Your task to perform on an android device: Add logitech g903 to the cart on ebay.com, then select checkout. Image 0: 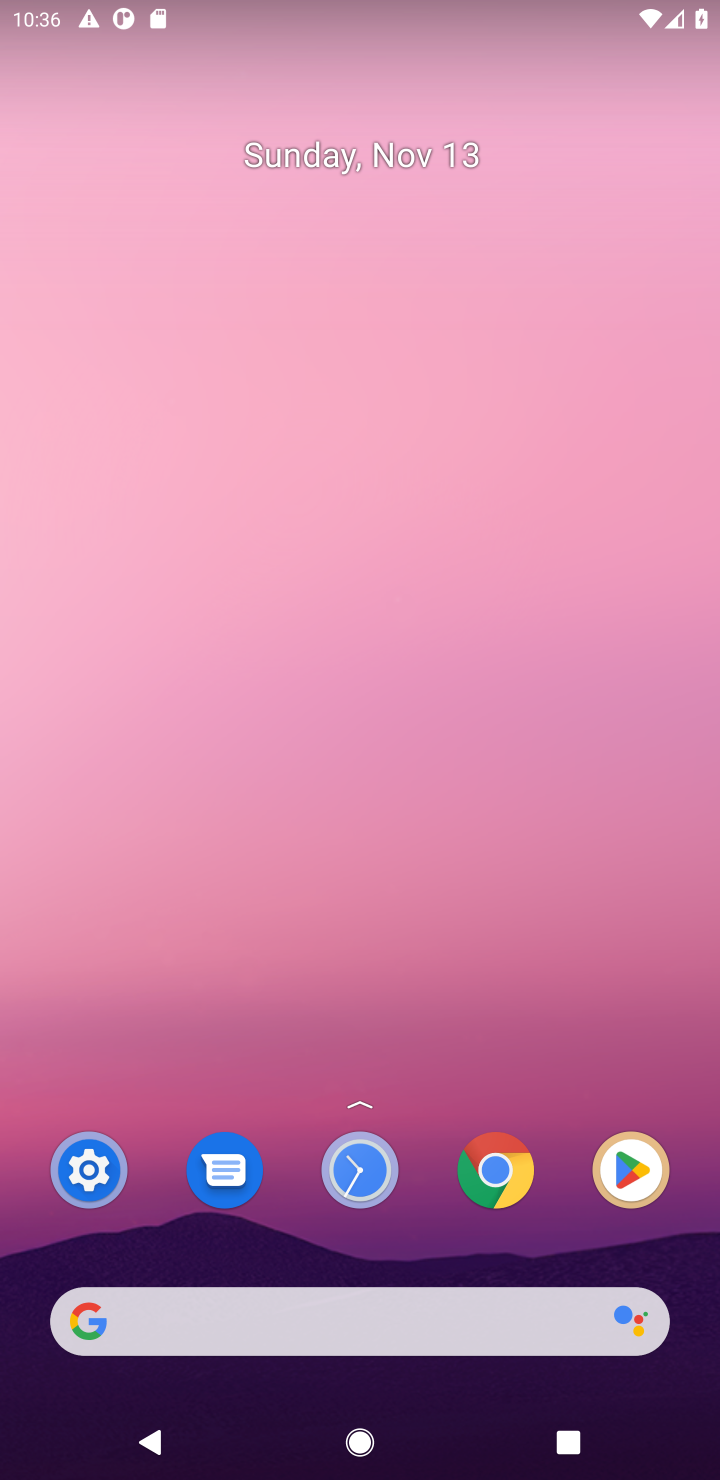
Step 0: click (463, 1332)
Your task to perform on an android device: Add logitech g903 to the cart on ebay.com, then select checkout. Image 1: 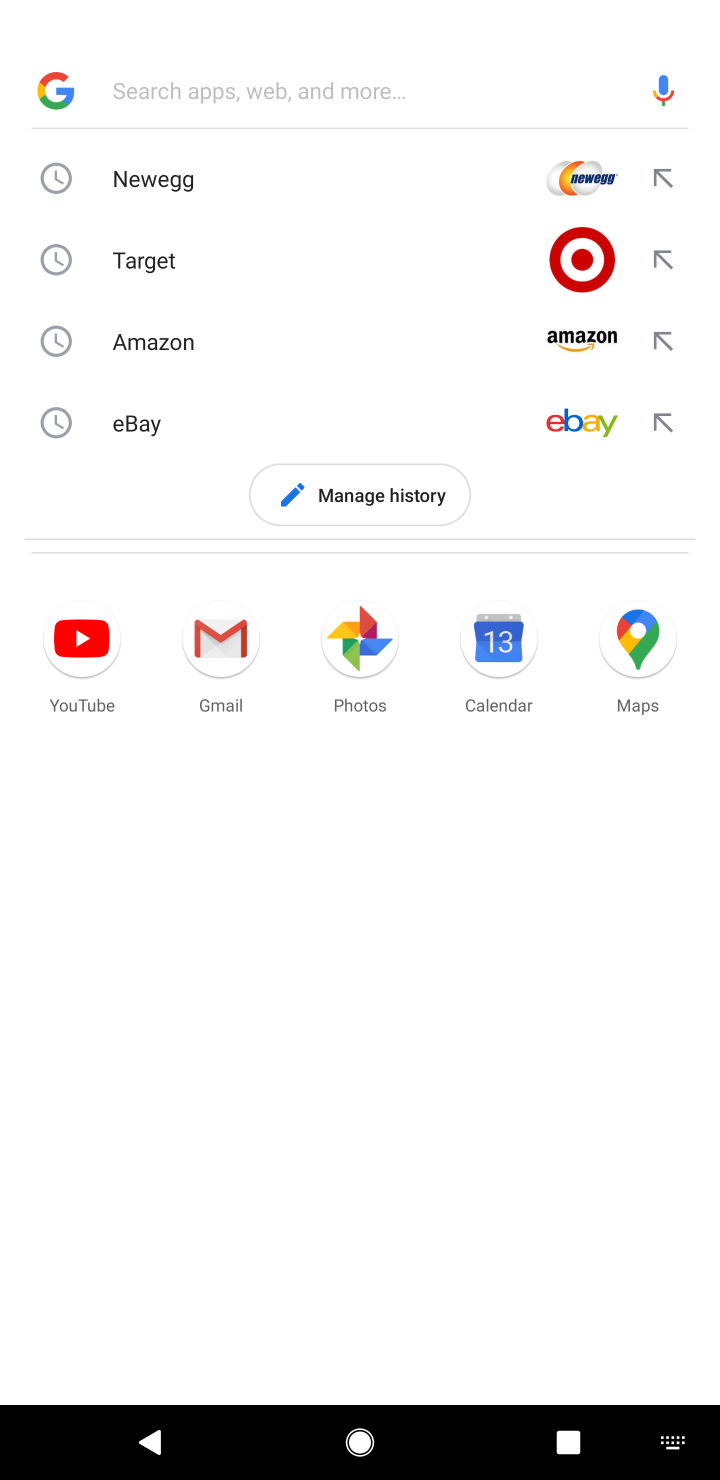
Step 1: type "ebay.com"
Your task to perform on an android device: Add logitech g903 to the cart on ebay.com, then select checkout. Image 2: 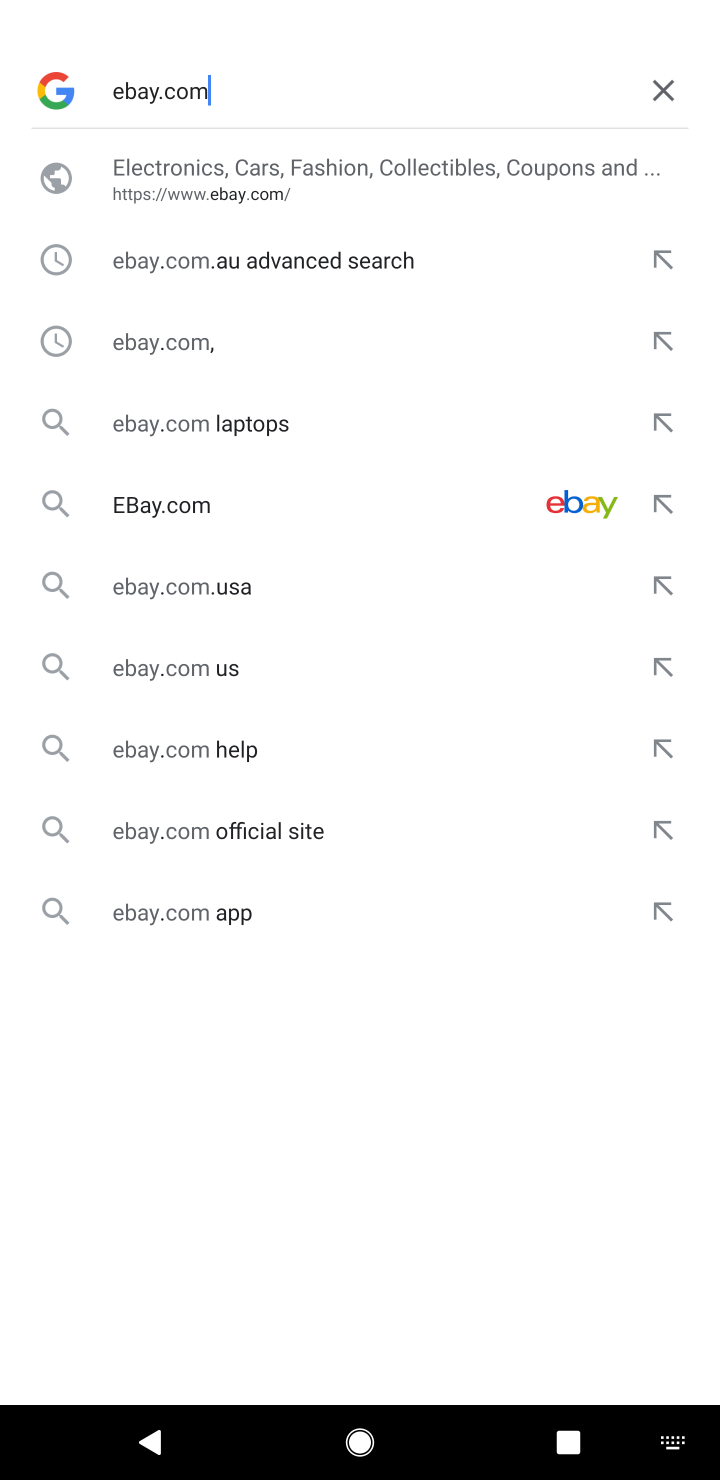
Step 2: click (128, 214)
Your task to perform on an android device: Add logitech g903 to the cart on ebay.com, then select checkout. Image 3: 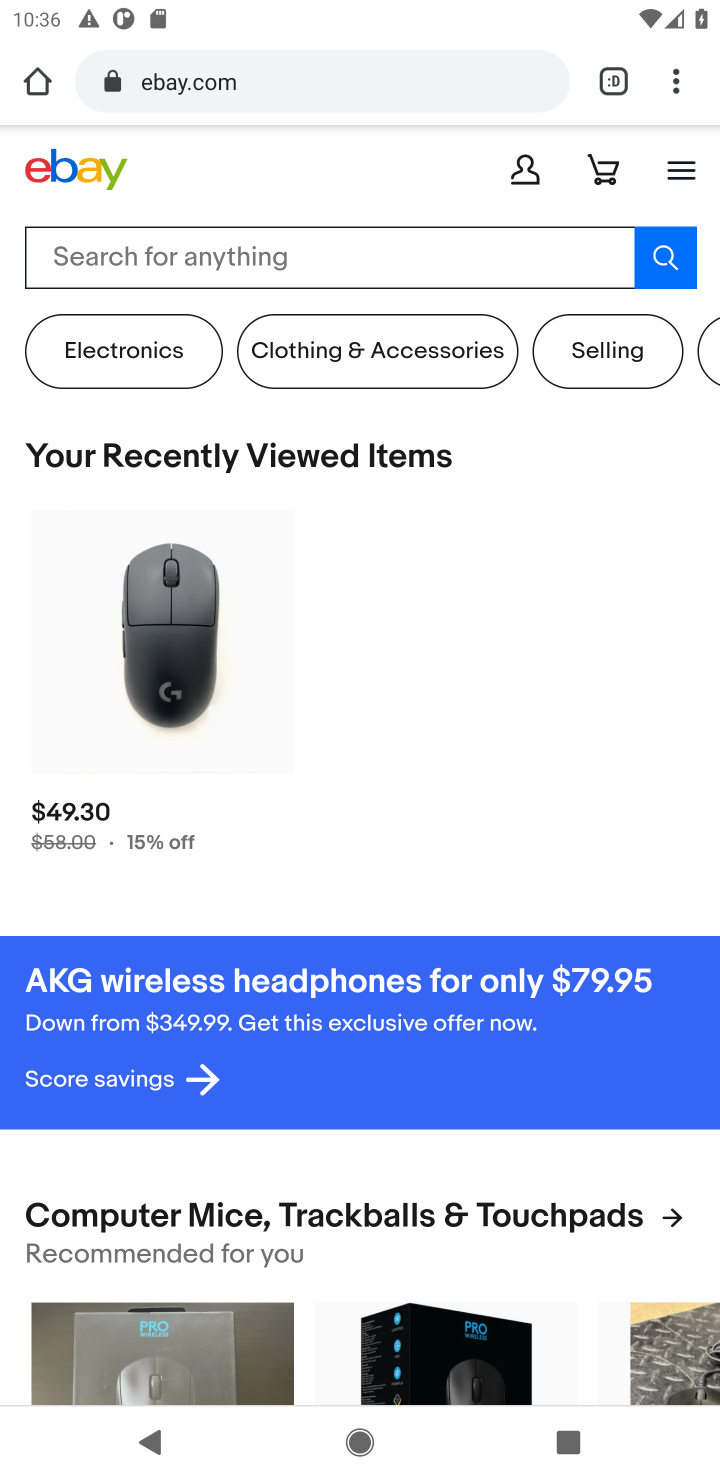
Step 3: task complete